Your task to perform on an android device: set an alarm Image 0: 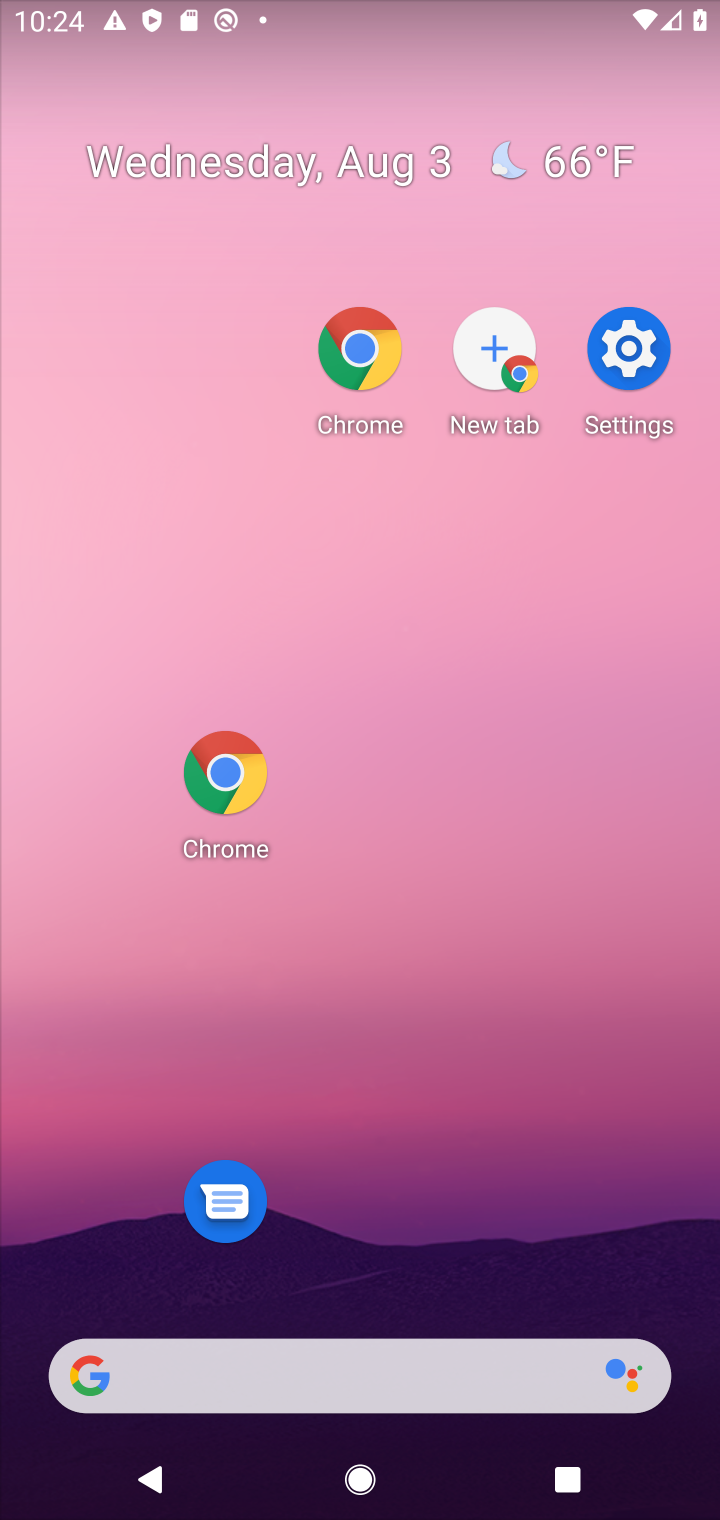
Step 0: drag from (375, 864) to (198, 345)
Your task to perform on an android device: set an alarm Image 1: 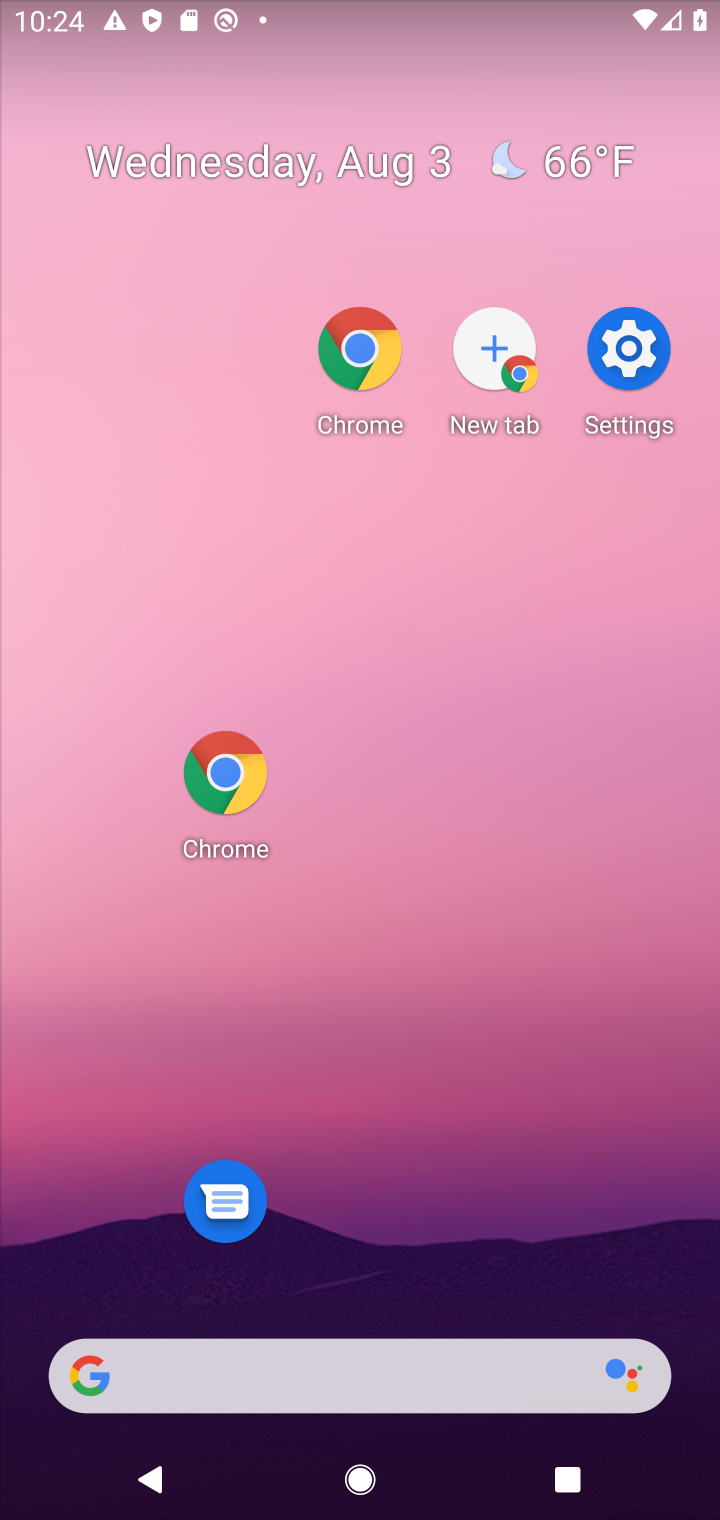
Step 1: drag from (436, 296) to (228, 228)
Your task to perform on an android device: set an alarm Image 2: 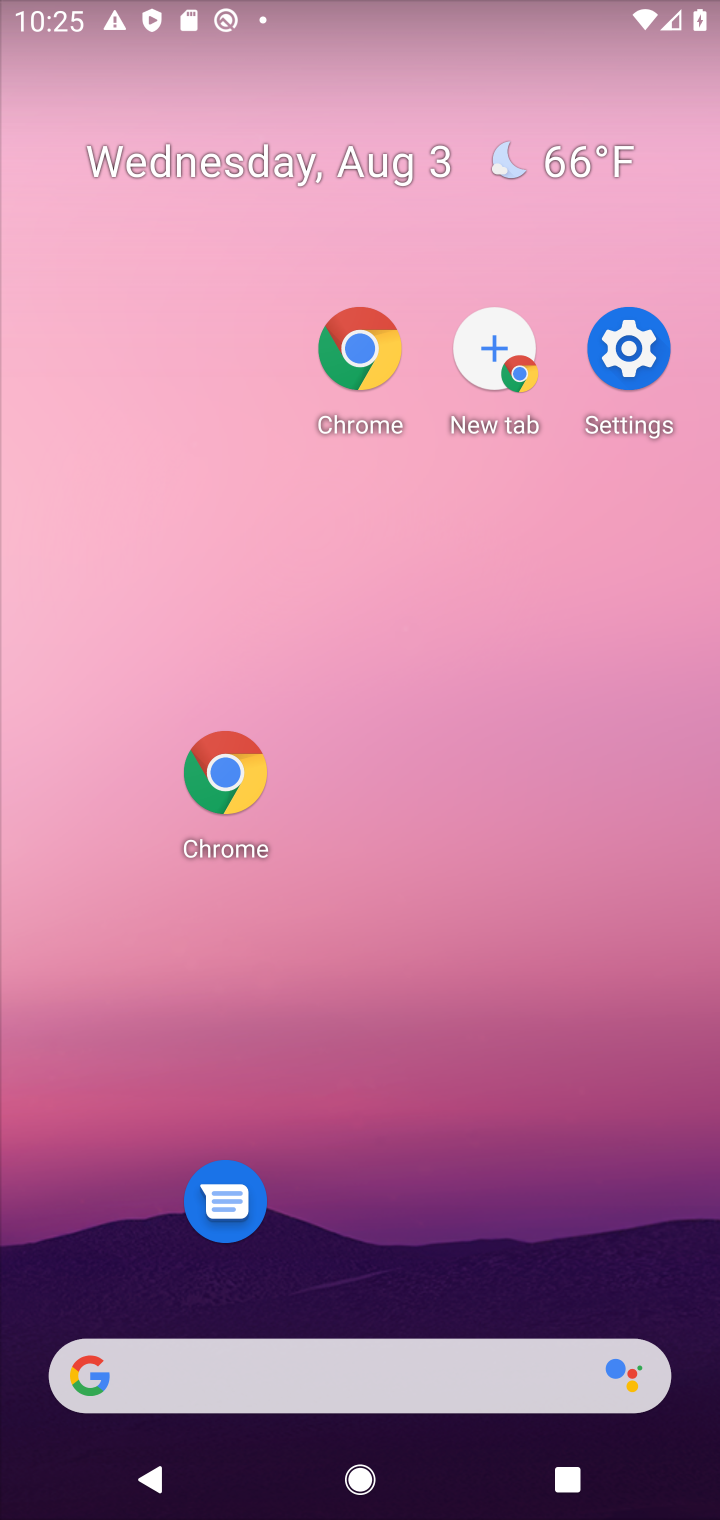
Step 2: drag from (103, 8) to (470, 99)
Your task to perform on an android device: set an alarm Image 3: 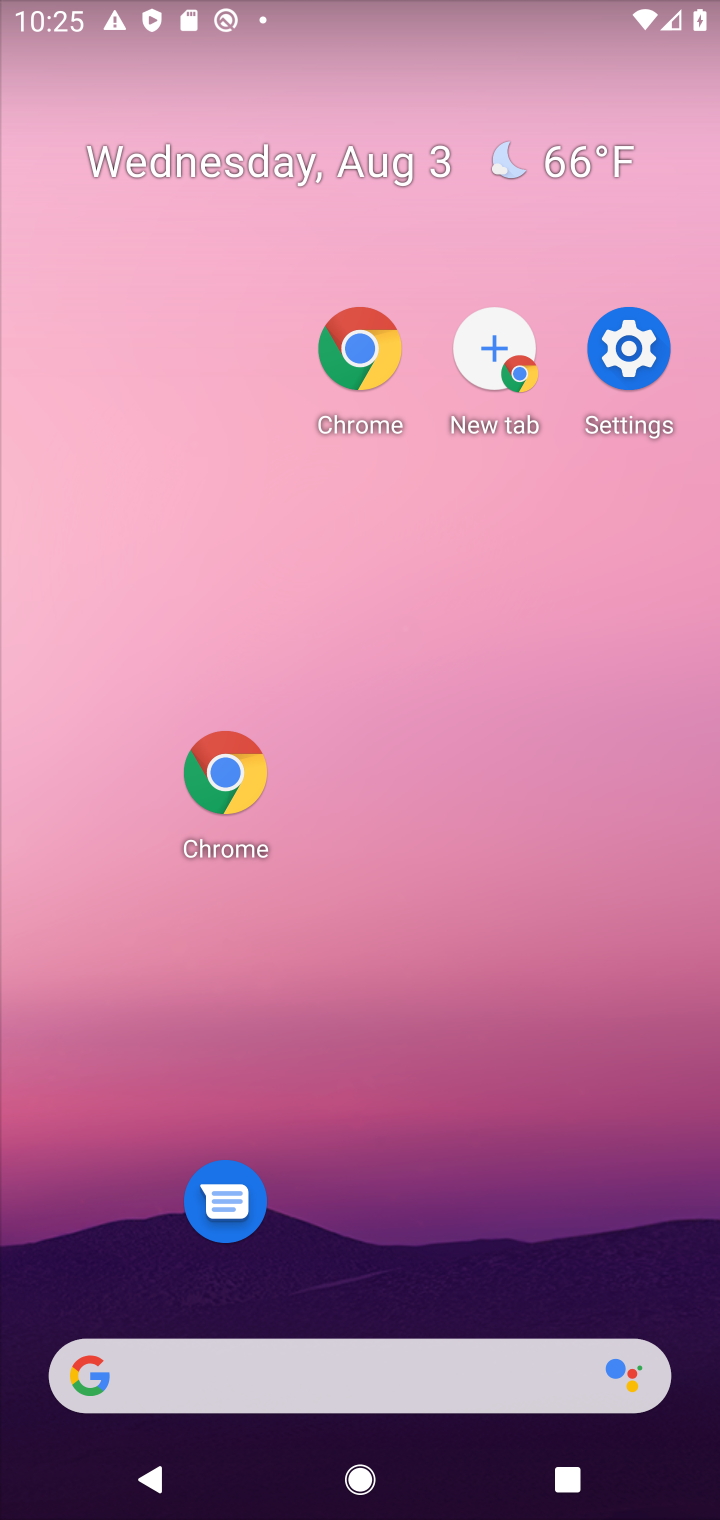
Step 3: drag from (426, 415) to (375, 127)
Your task to perform on an android device: set an alarm Image 4: 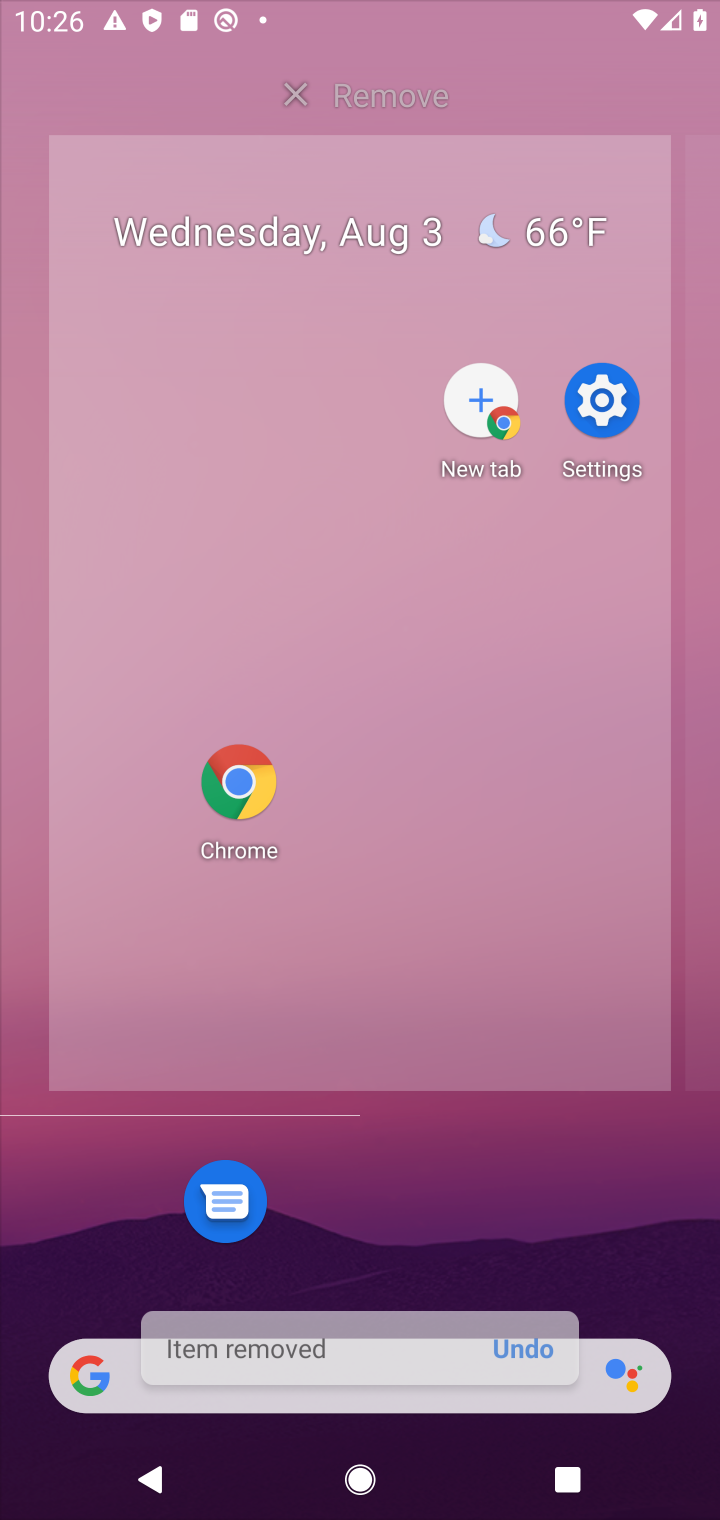
Step 4: drag from (408, 1280) to (371, 313)
Your task to perform on an android device: set an alarm Image 5: 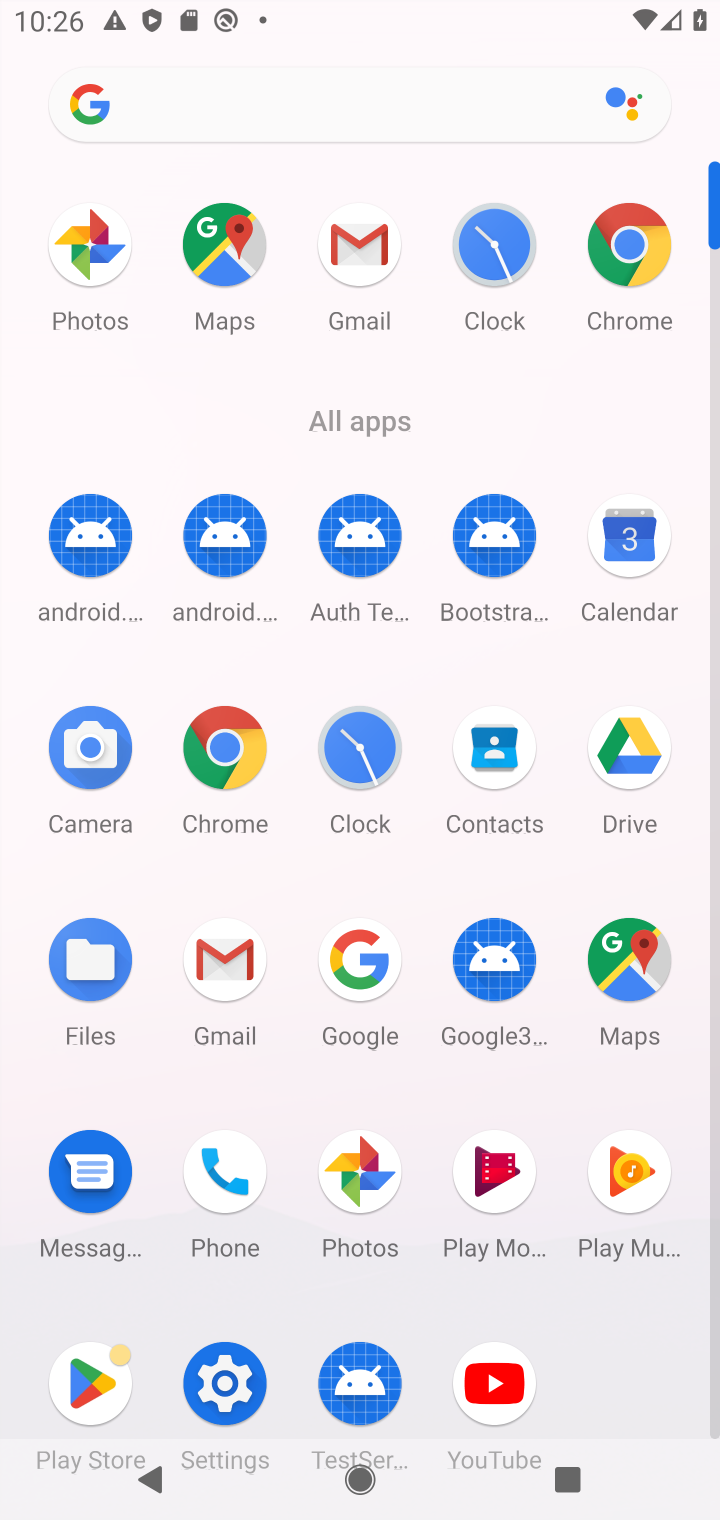
Step 5: drag from (413, 763) to (394, 541)
Your task to perform on an android device: set an alarm Image 6: 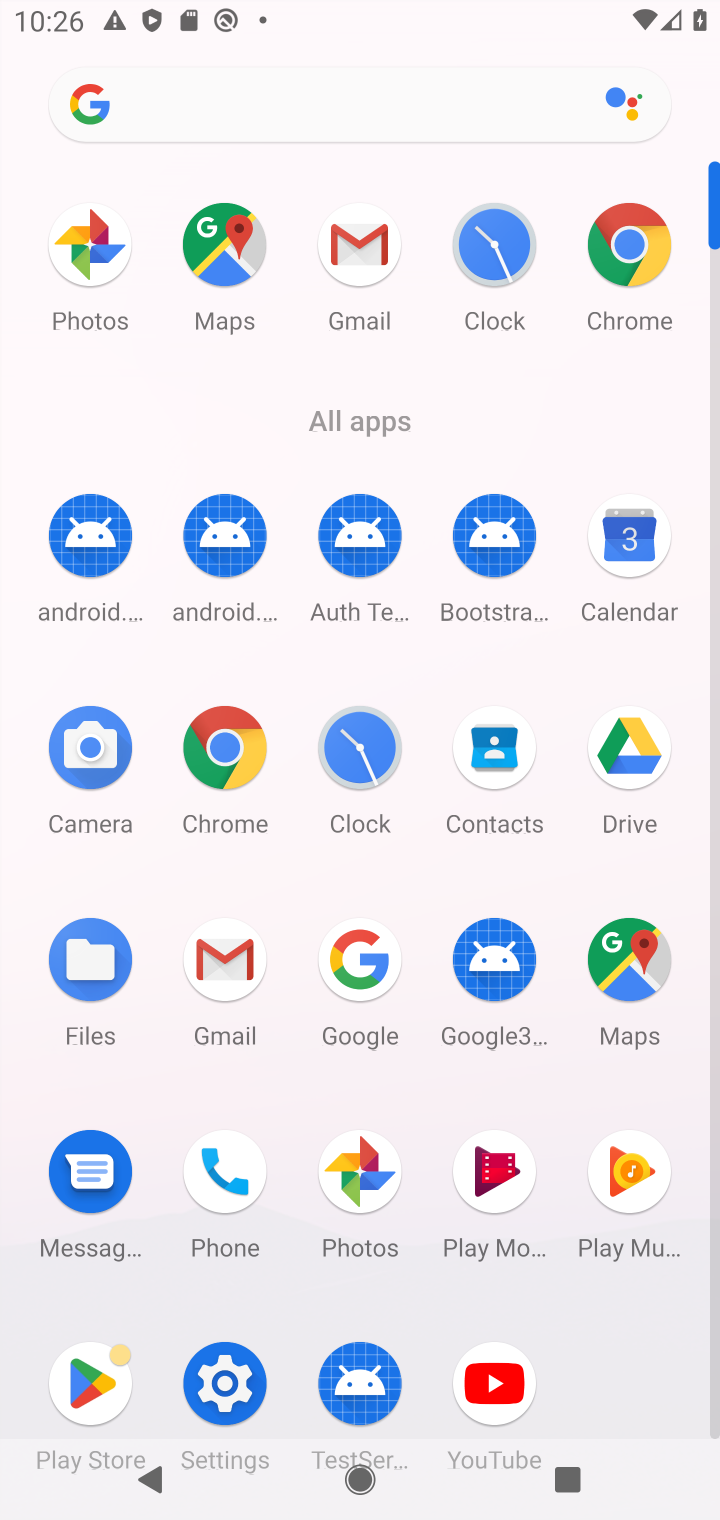
Step 6: drag from (358, 546) to (410, 317)
Your task to perform on an android device: set an alarm Image 7: 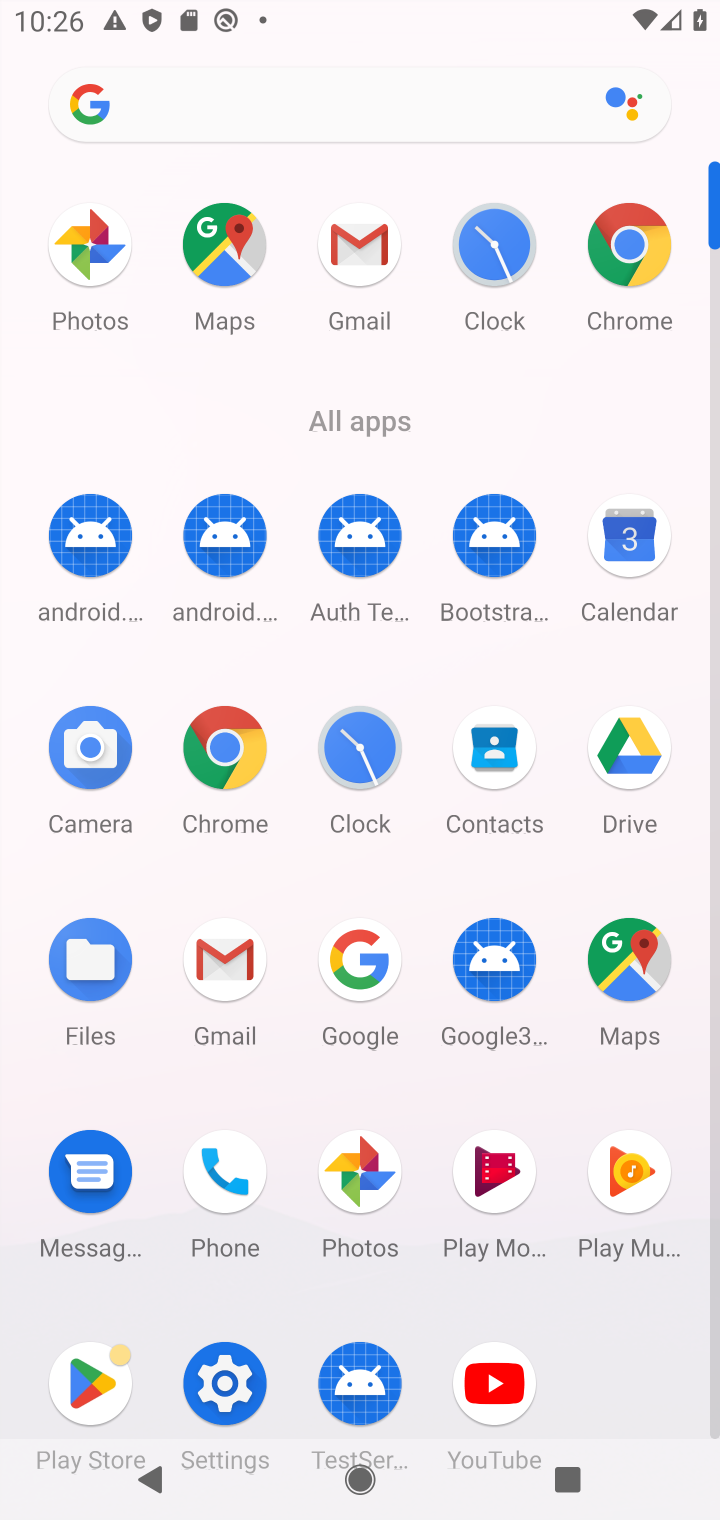
Step 7: click (414, 535)
Your task to perform on an android device: set an alarm Image 8: 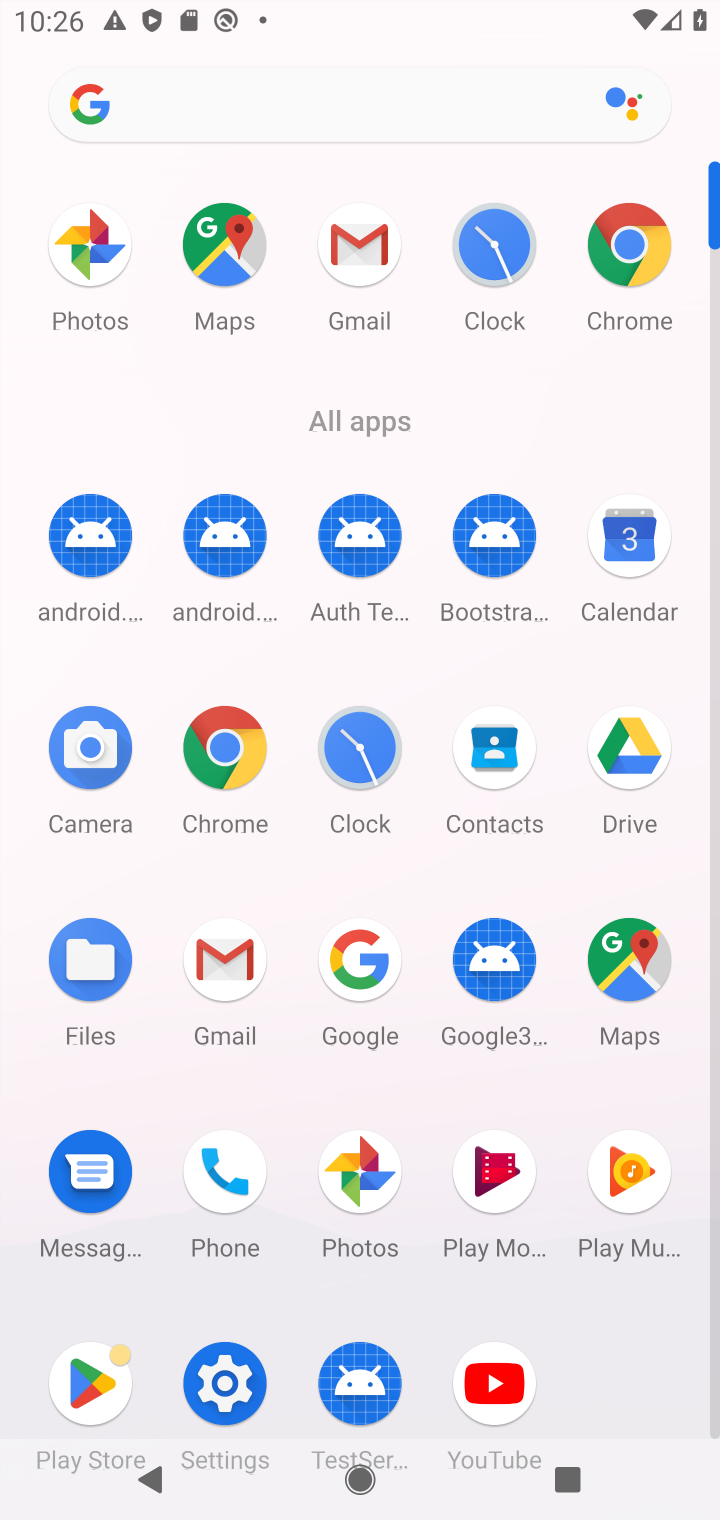
Step 8: drag from (497, 1186) to (568, 568)
Your task to perform on an android device: set an alarm Image 9: 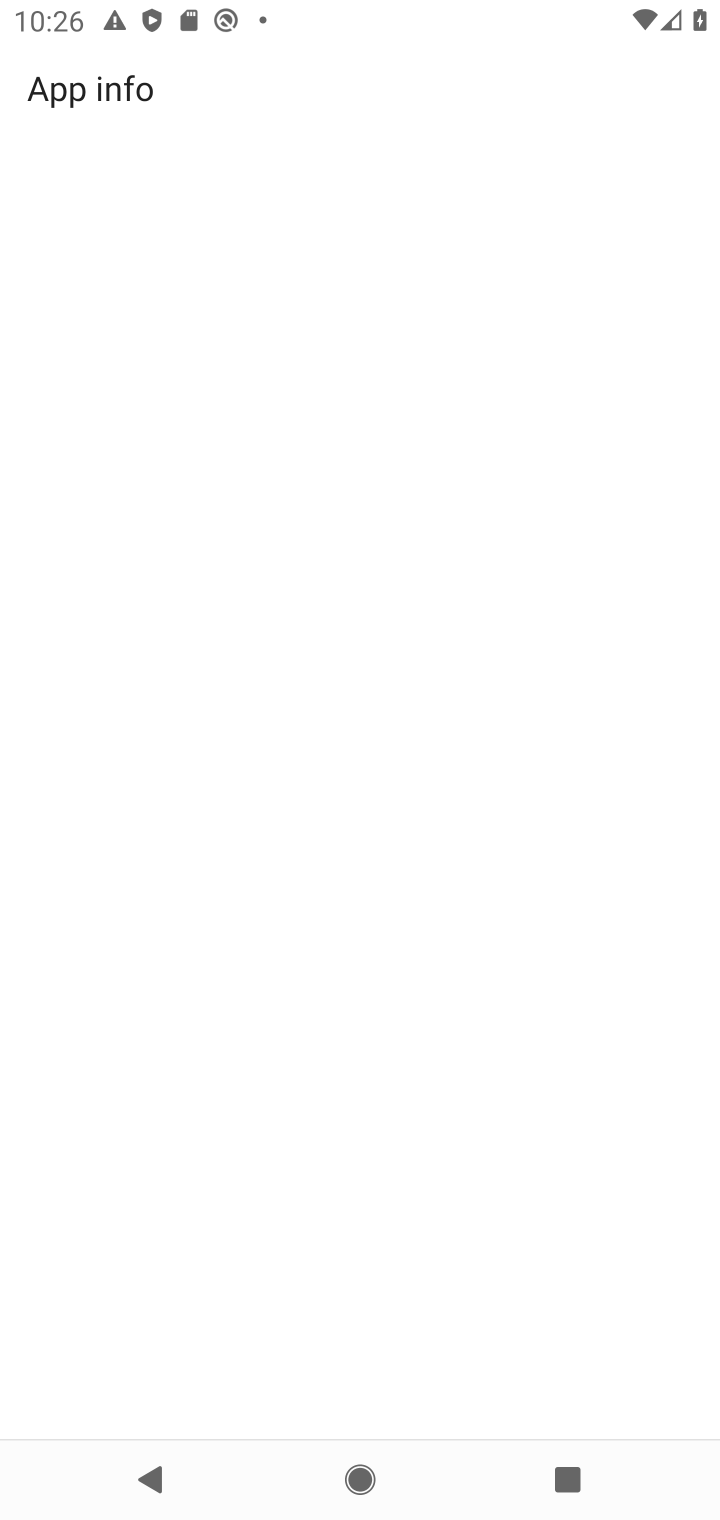
Step 9: click (347, 745)
Your task to perform on an android device: set an alarm Image 10: 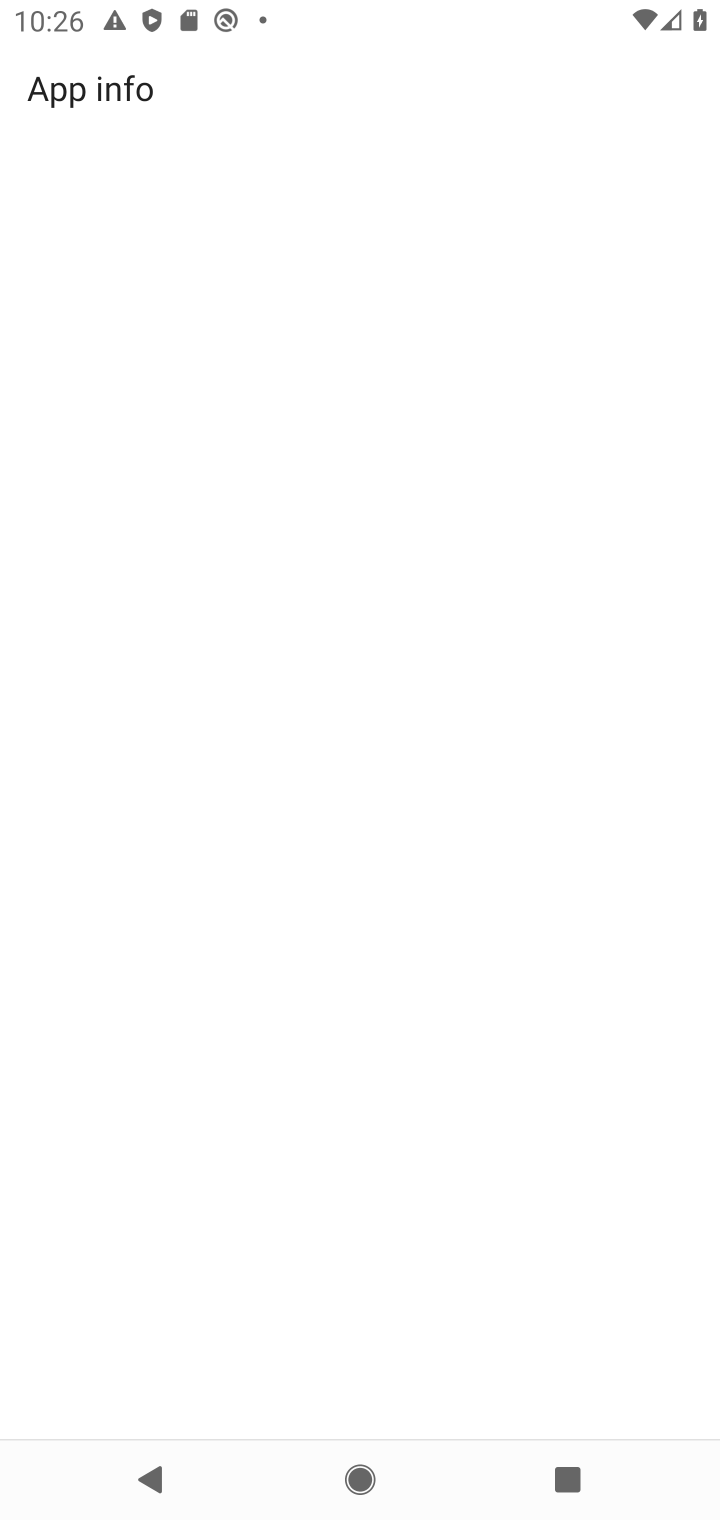
Step 10: click (353, 736)
Your task to perform on an android device: set an alarm Image 11: 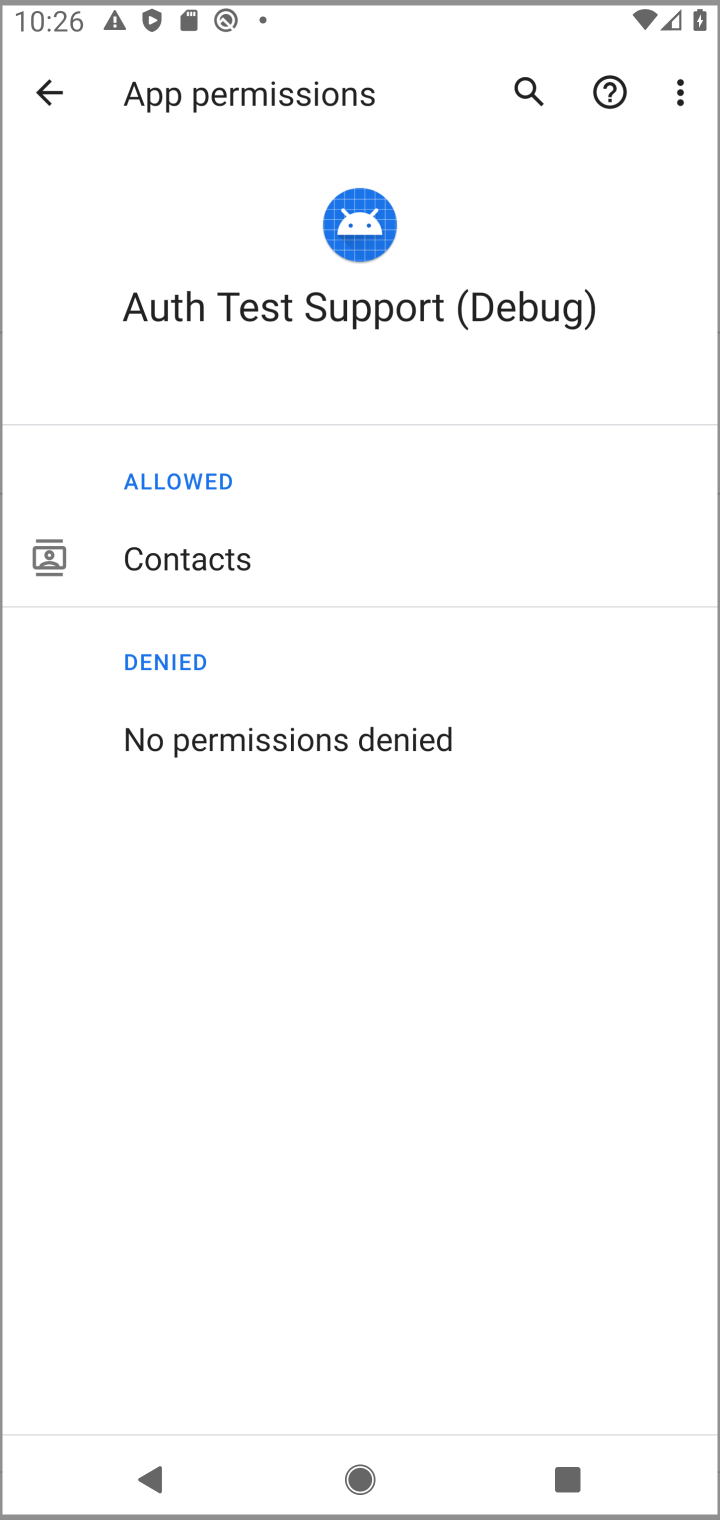
Step 11: click (56, 117)
Your task to perform on an android device: set an alarm Image 12: 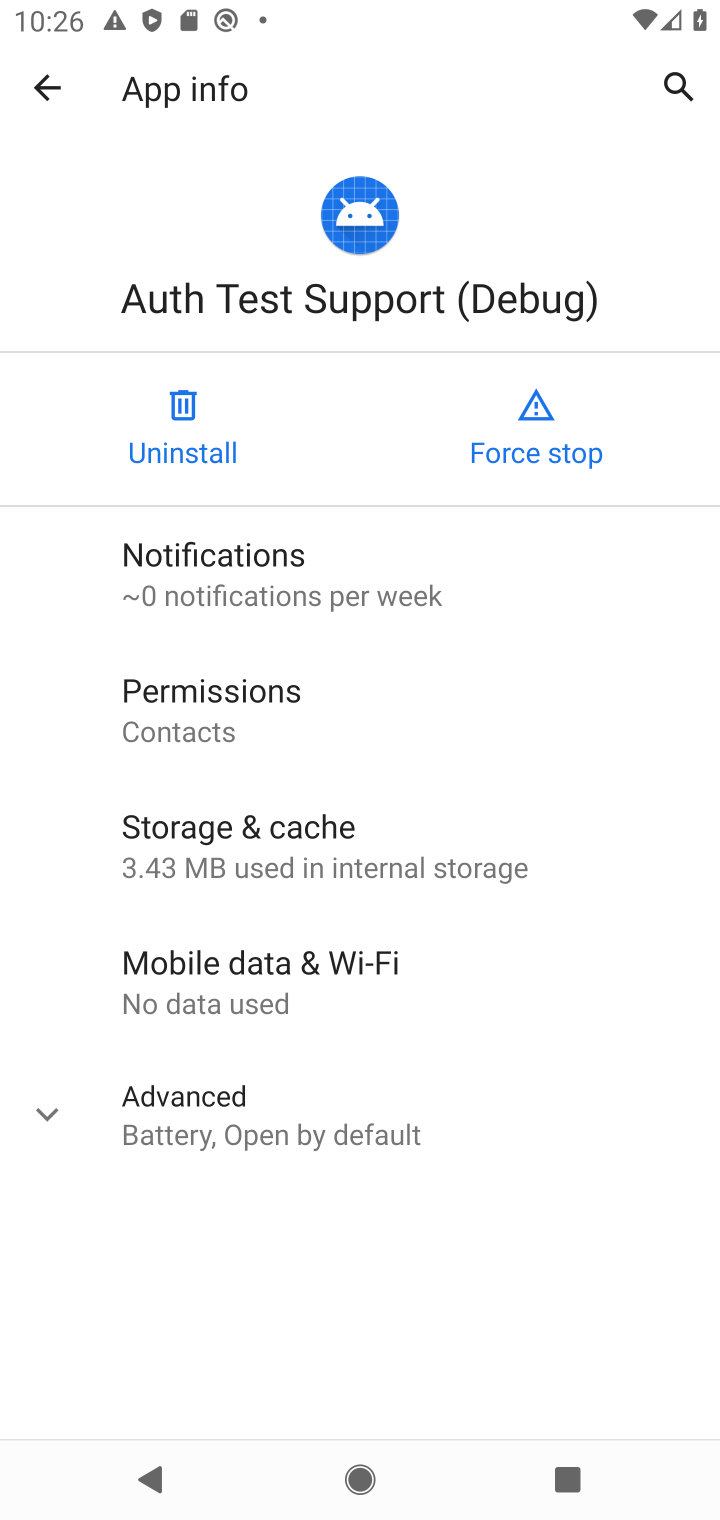
Step 12: click (29, 96)
Your task to perform on an android device: set an alarm Image 13: 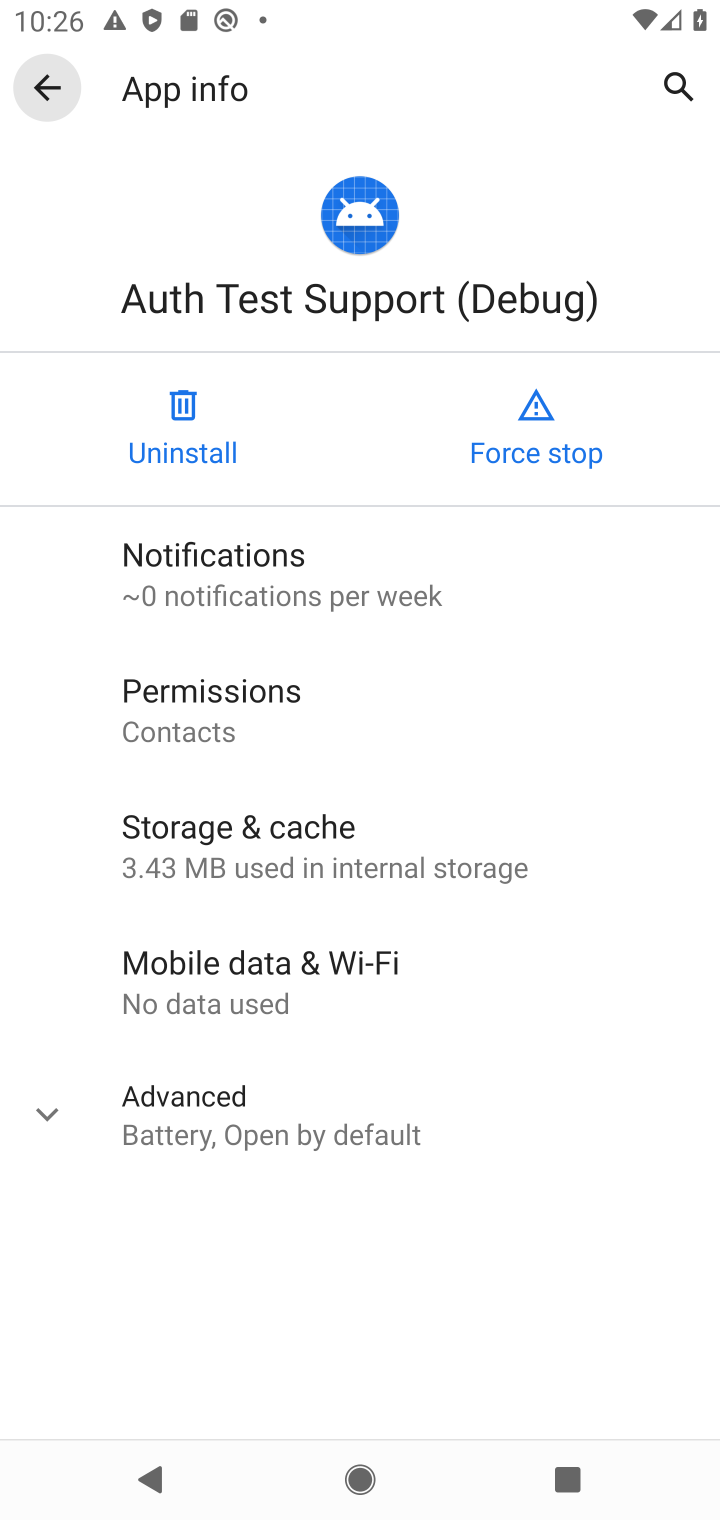
Step 13: click (36, 92)
Your task to perform on an android device: set an alarm Image 14: 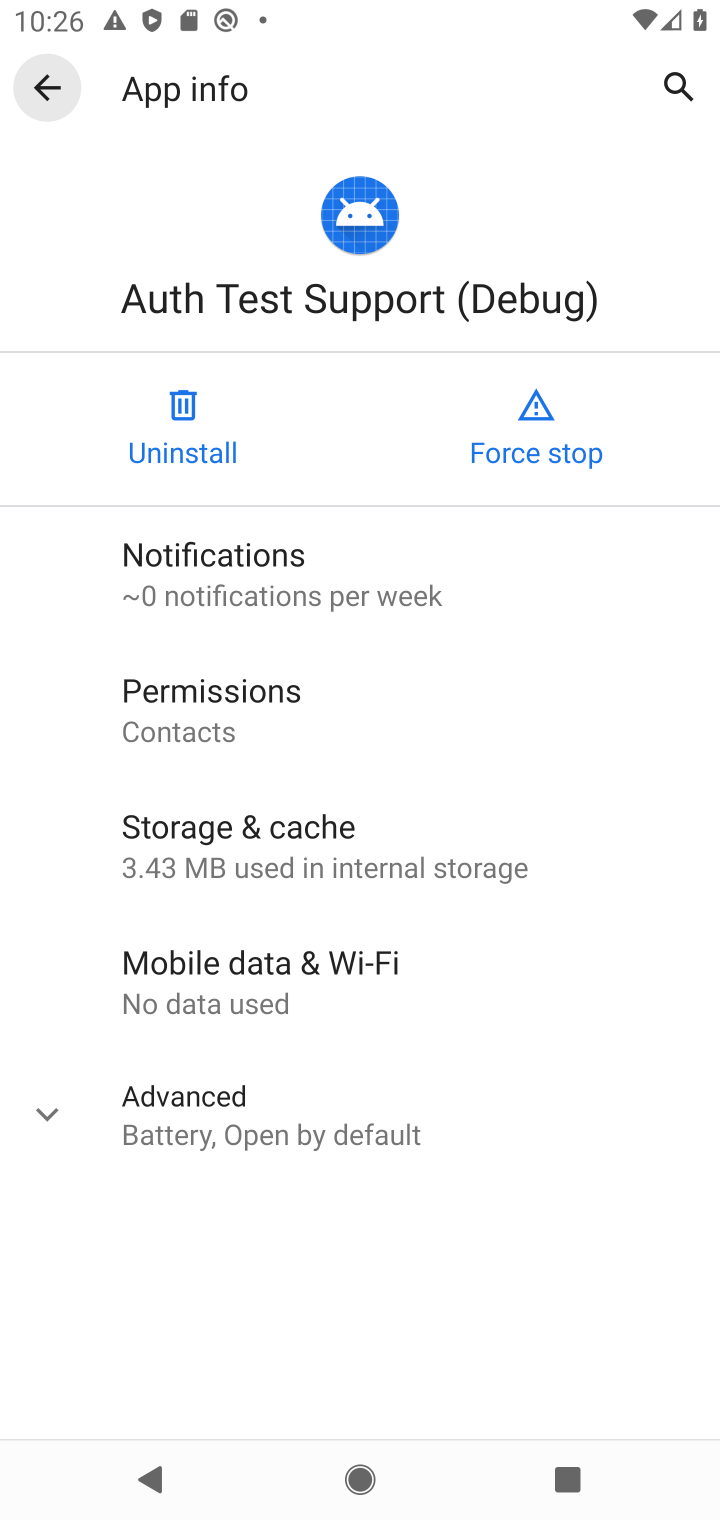
Step 14: click (34, 90)
Your task to perform on an android device: set an alarm Image 15: 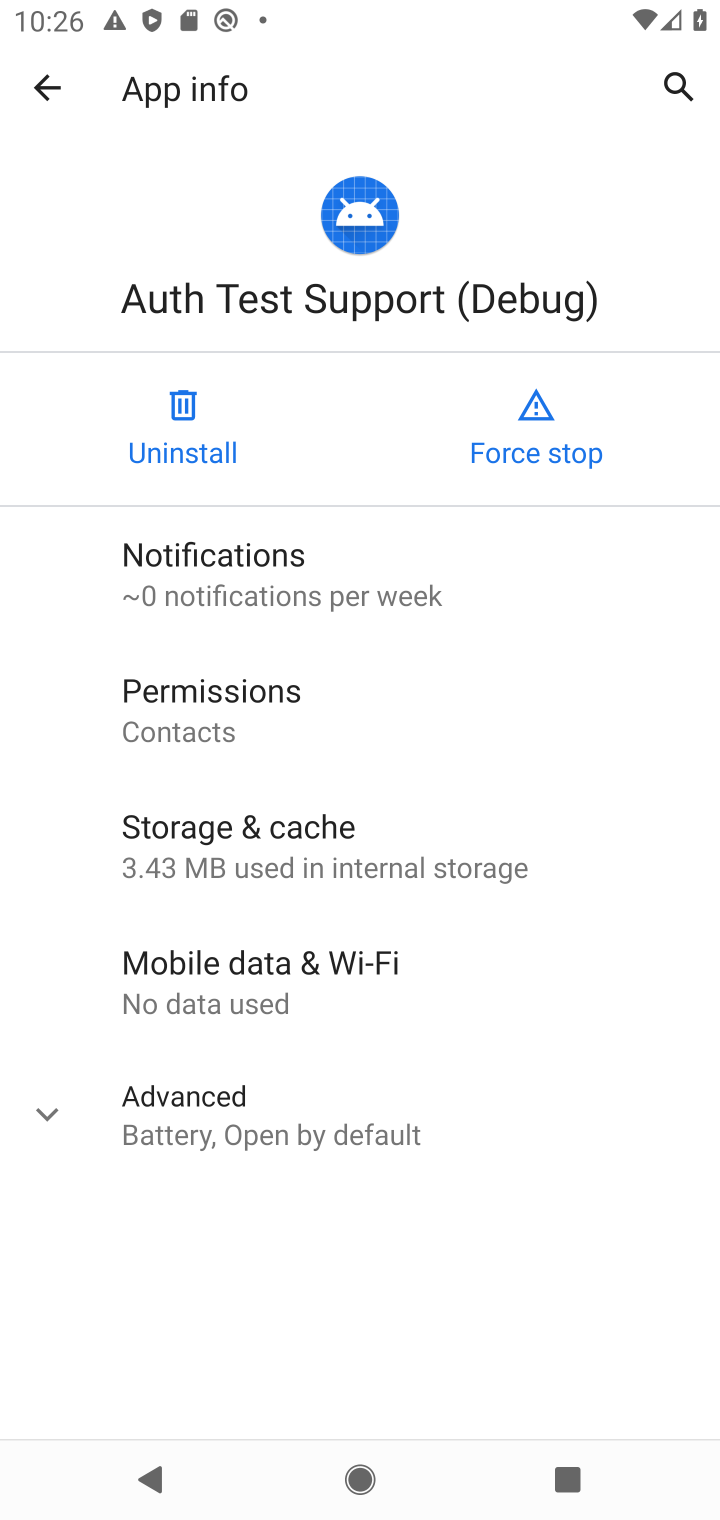
Step 15: click (32, 92)
Your task to perform on an android device: set an alarm Image 16: 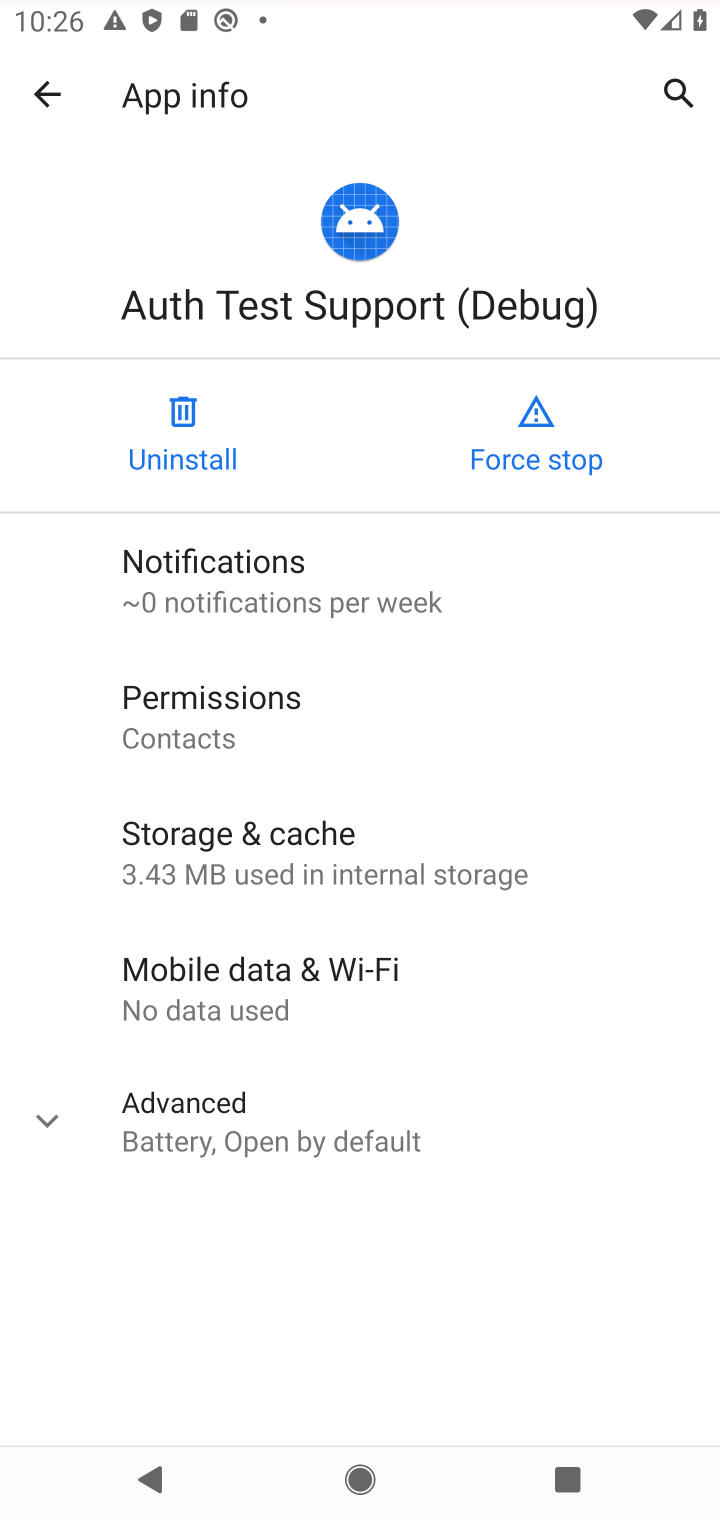
Step 16: click (32, 92)
Your task to perform on an android device: set an alarm Image 17: 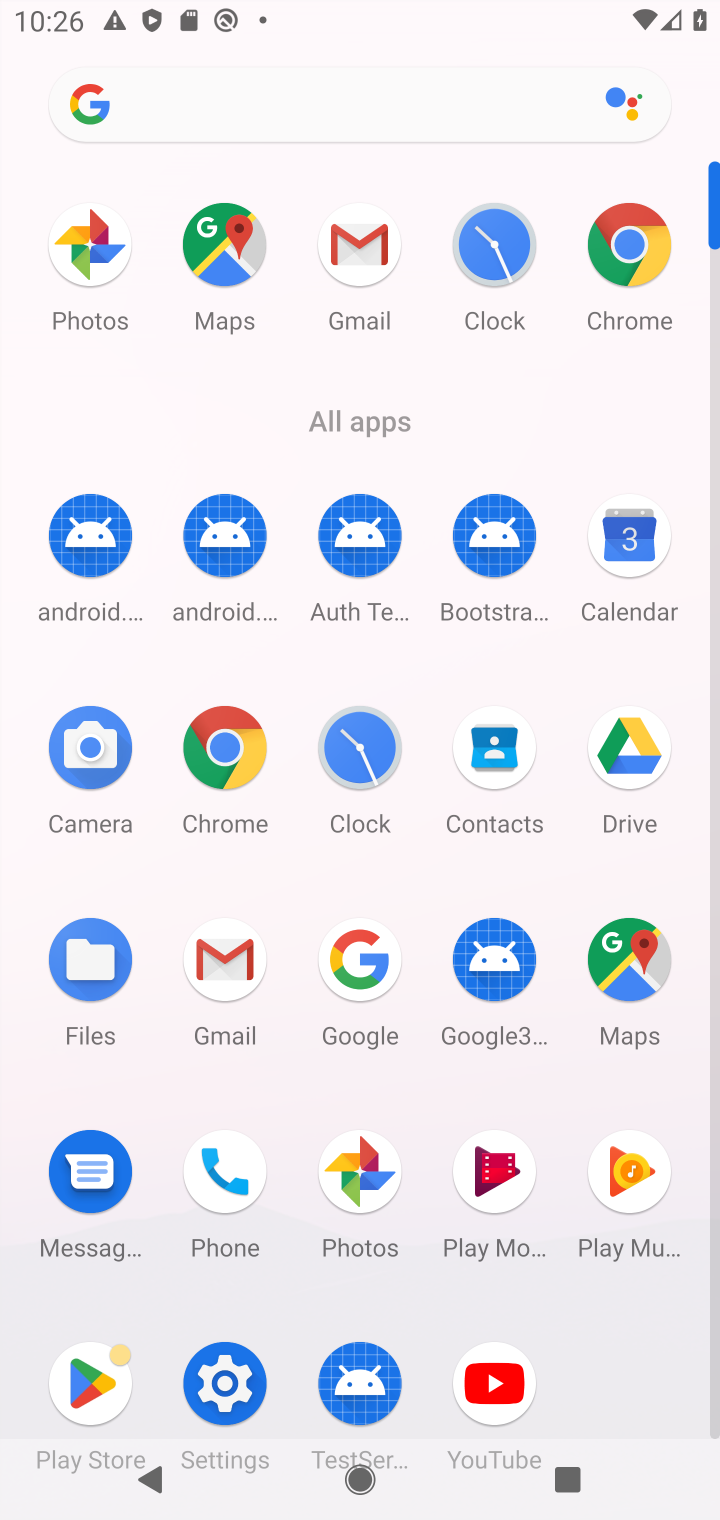
Step 17: click (26, 96)
Your task to perform on an android device: set an alarm Image 18: 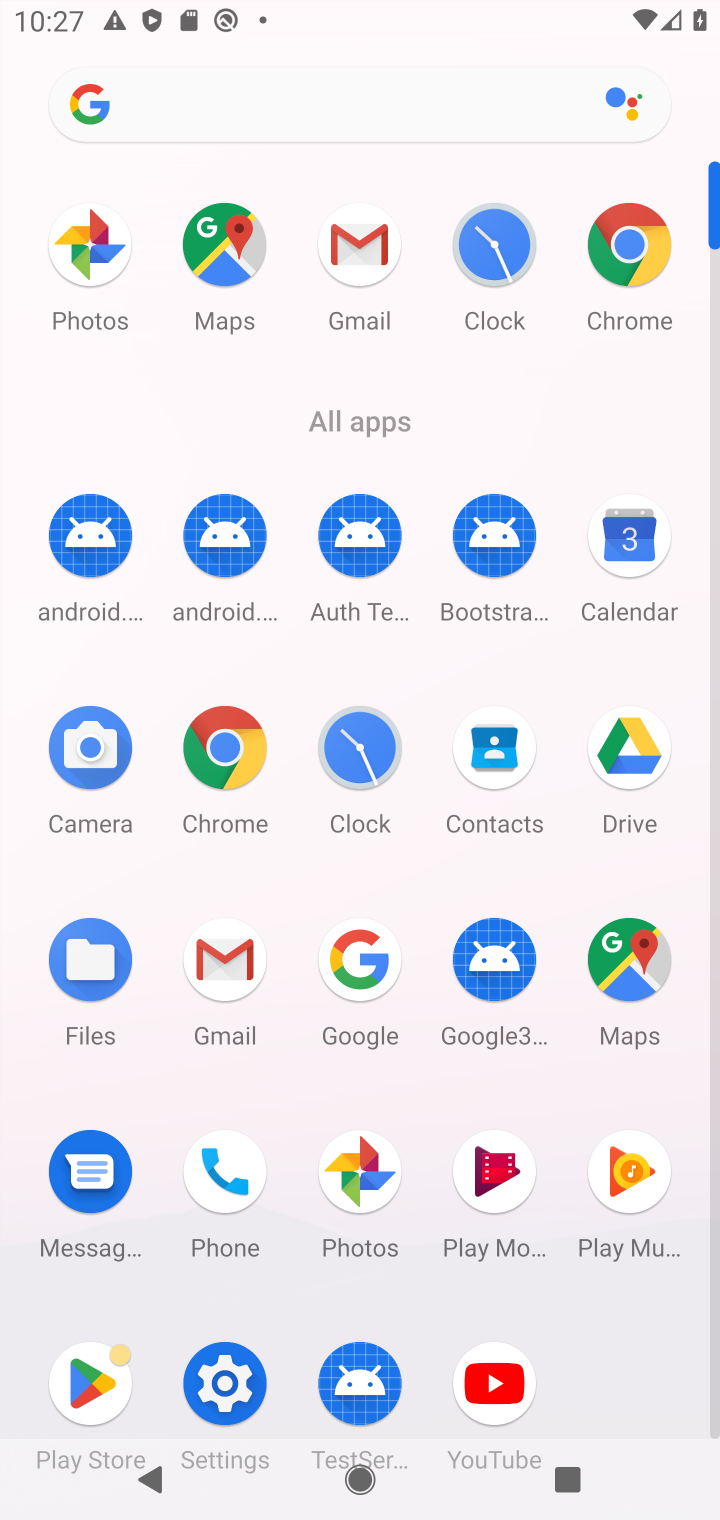
Step 18: click (496, 209)
Your task to perform on an android device: set an alarm Image 19: 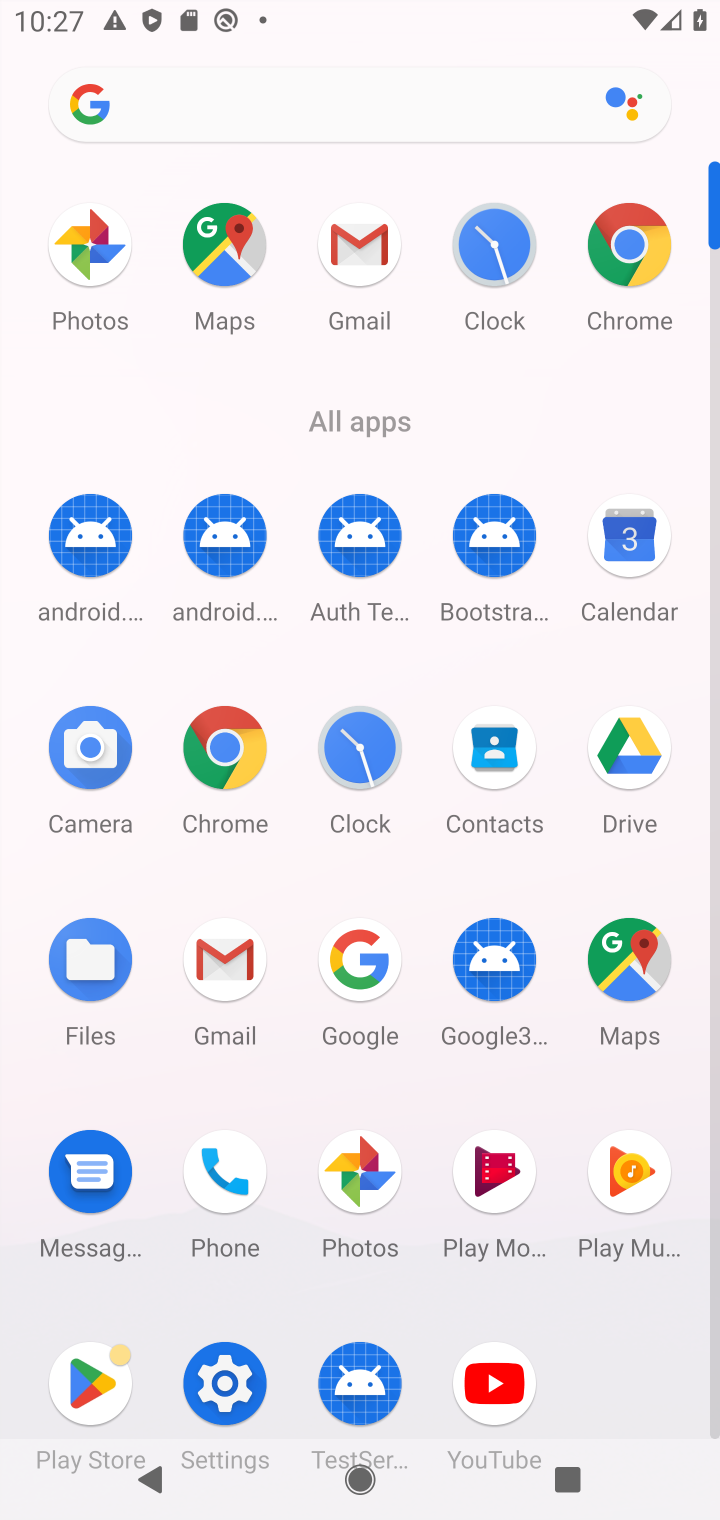
Step 19: click (496, 209)
Your task to perform on an android device: set an alarm Image 20: 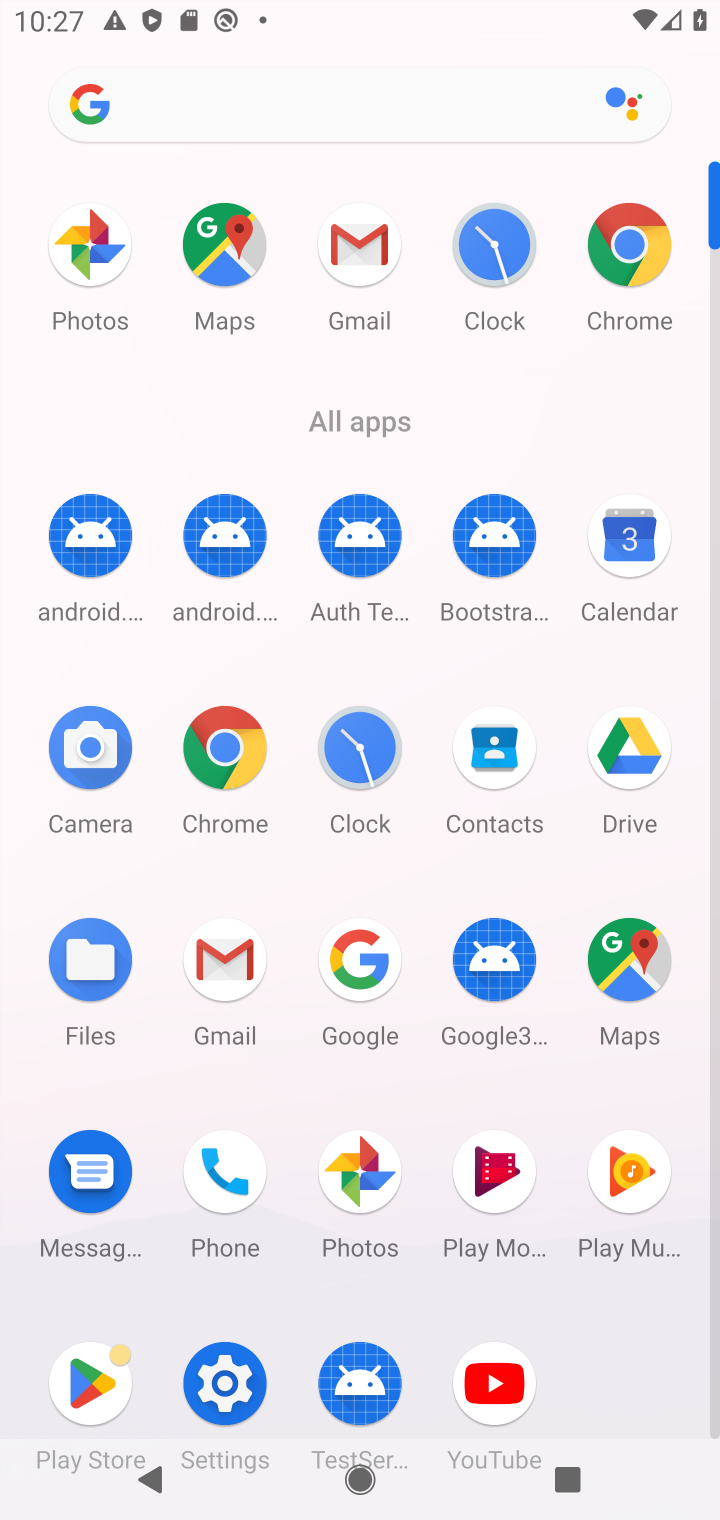
Step 20: click (496, 237)
Your task to perform on an android device: set an alarm Image 21: 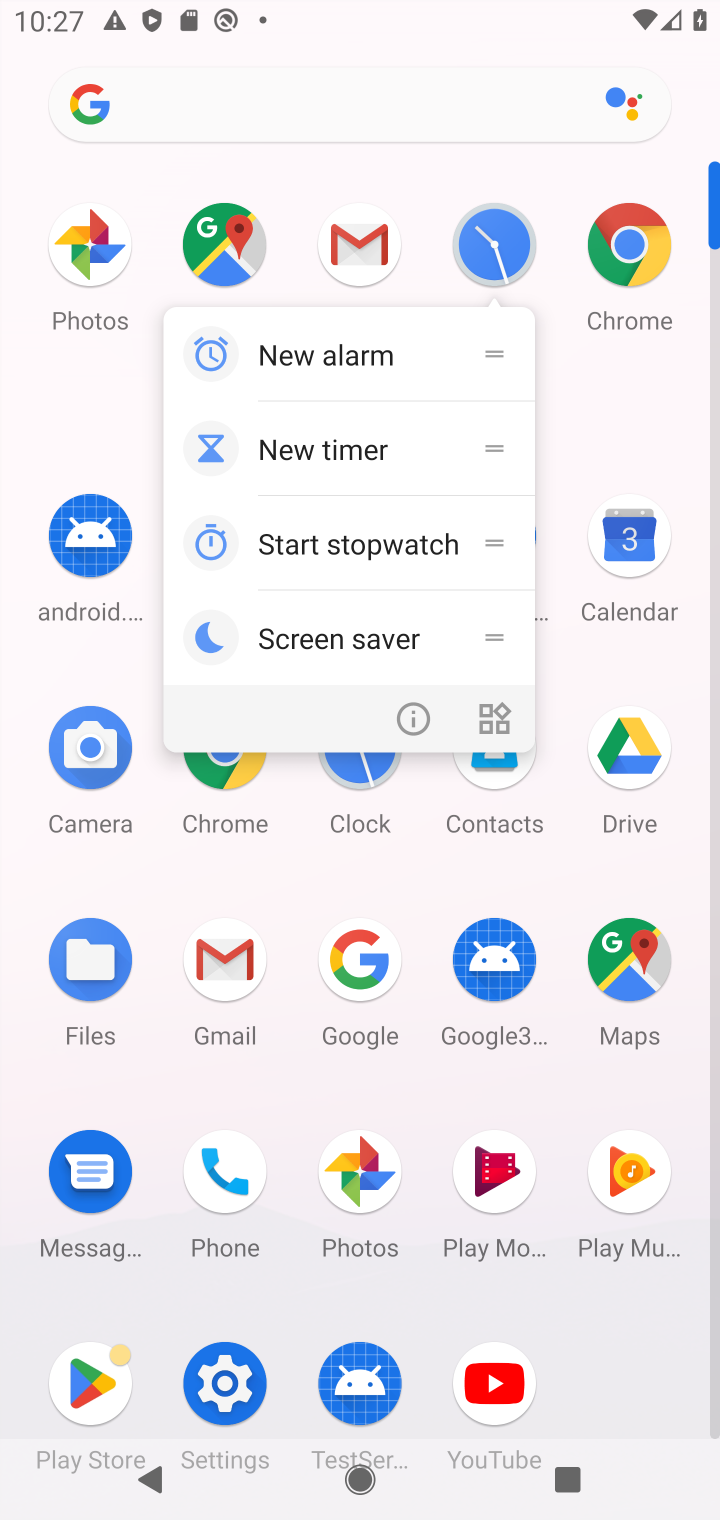
Step 21: task complete